Your task to perform on an android device: Check the news Image 0: 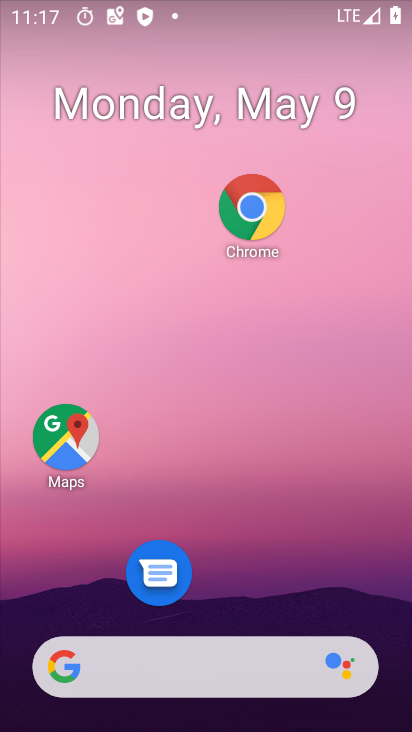
Step 0: drag from (251, 580) to (225, 93)
Your task to perform on an android device: Check the news Image 1: 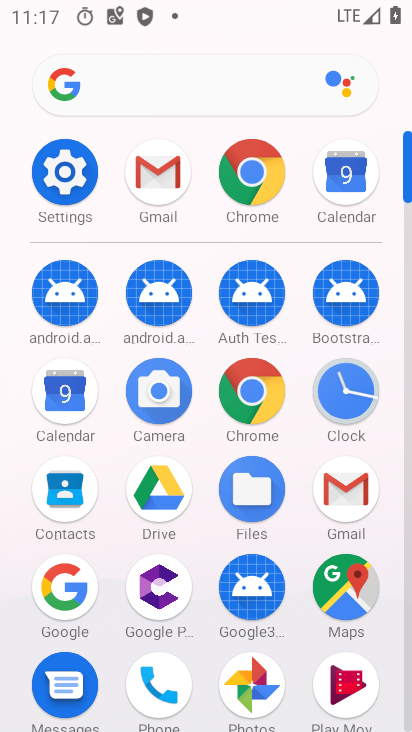
Step 1: drag from (301, 554) to (313, 212)
Your task to perform on an android device: Check the news Image 2: 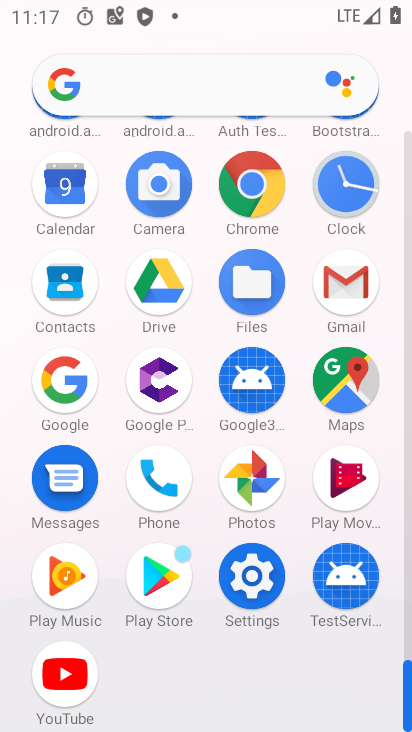
Step 2: click (79, 400)
Your task to perform on an android device: Check the news Image 3: 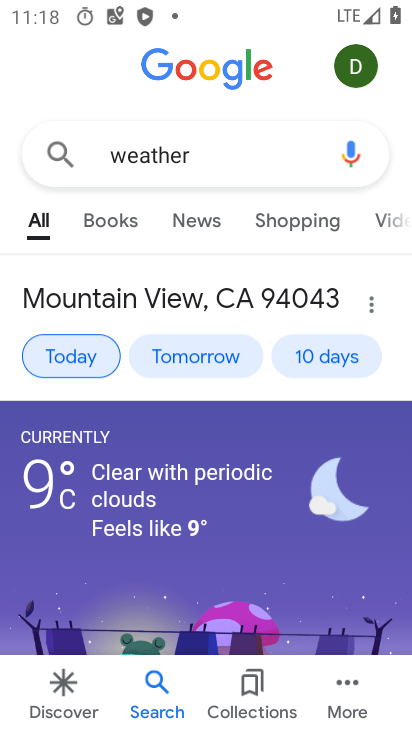
Step 3: click (181, 234)
Your task to perform on an android device: Check the news Image 4: 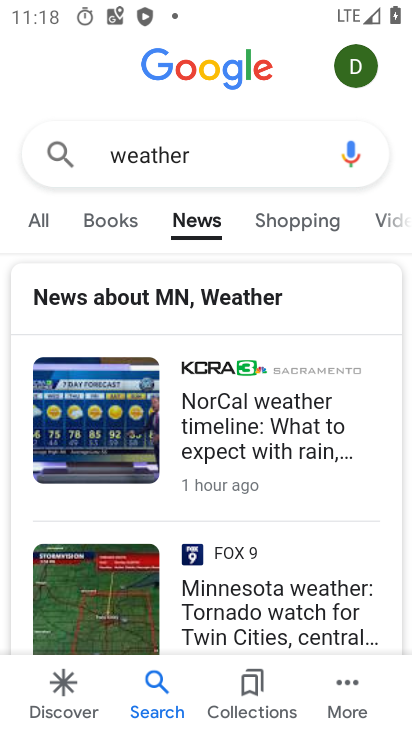
Step 4: task complete